Your task to perform on an android device: Open display settings Image 0: 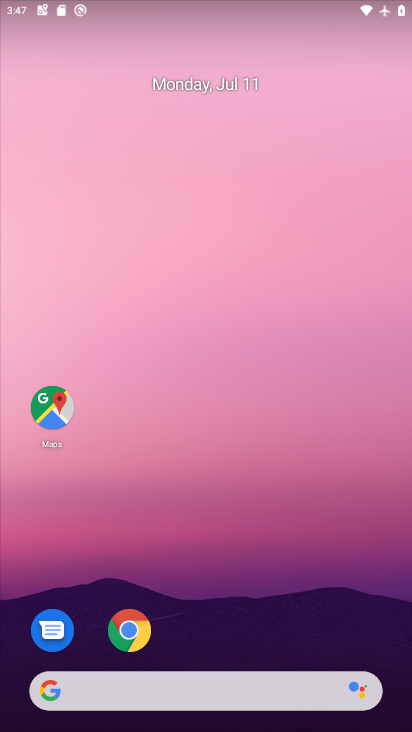
Step 0: drag from (267, 630) to (254, 127)
Your task to perform on an android device: Open display settings Image 1: 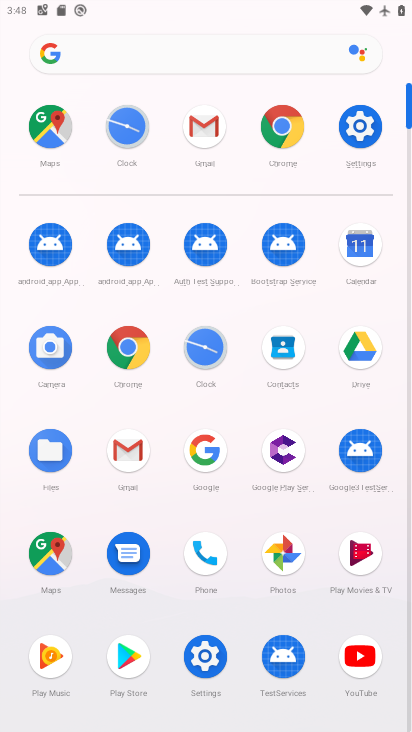
Step 1: click (353, 147)
Your task to perform on an android device: Open display settings Image 2: 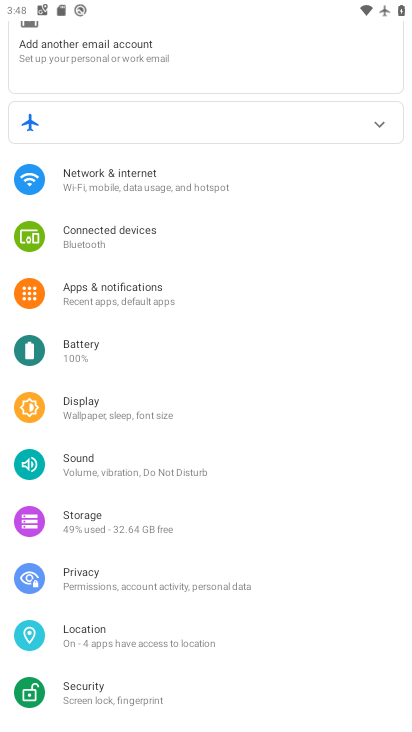
Step 2: click (171, 402)
Your task to perform on an android device: Open display settings Image 3: 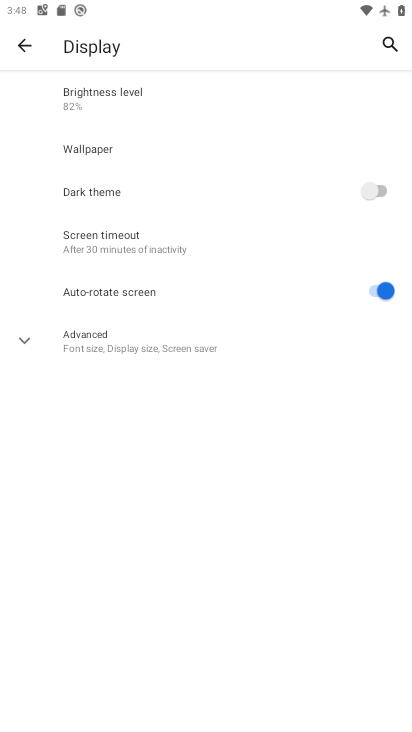
Step 3: task complete